Your task to perform on an android device: turn off priority inbox in the gmail app Image 0: 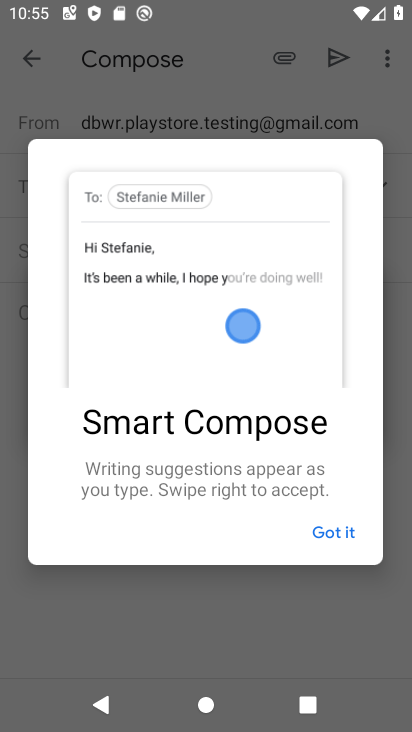
Step 0: click (334, 535)
Your task to perform on an android device: turn off priority inbox in the gmail app Image 1: 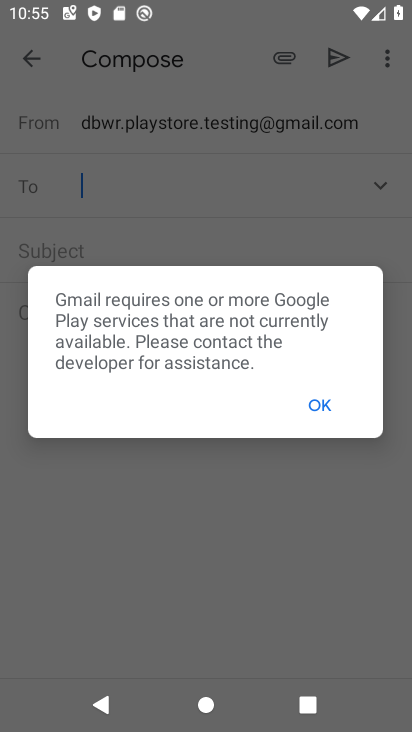
Step 1: press home button
Your task to perform on an android device: turn off priority inbox in the gmail app Image 2: 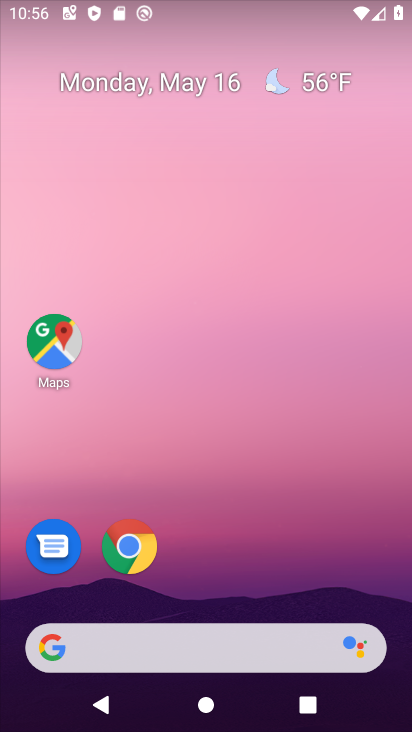
Step 2: drag from (310, 528) to (352, 52)
Your task to perform on an android device: turn off priority inbox in the gmail app Image 3: 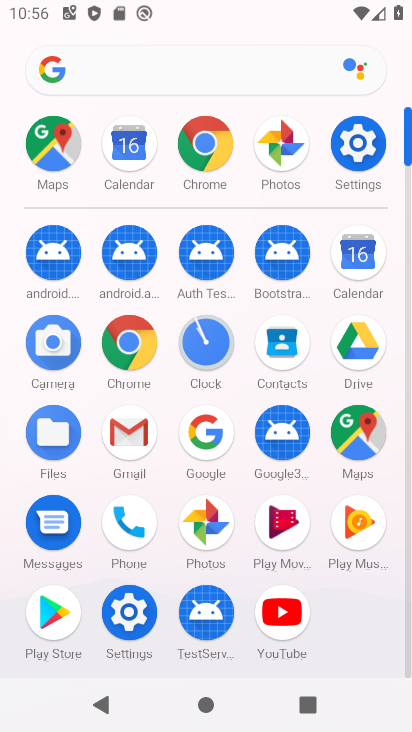
Step 3: click (135, 429)
Your task to perform on an android device: turn off priority inbox in the gmail app Image 4: 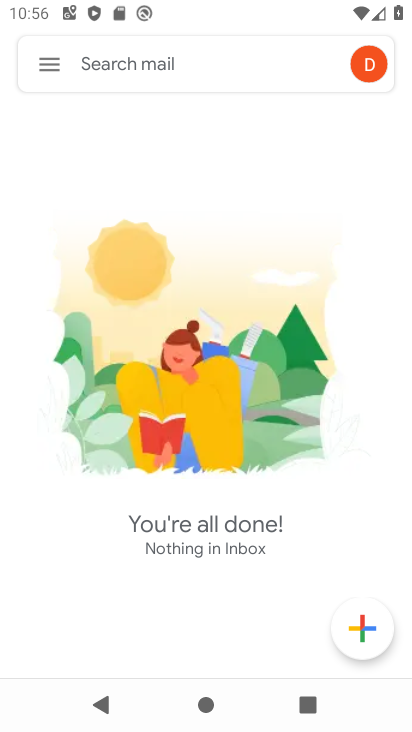
Step 4: click (46, 84)
Your task to perform on an android device: turn off priority inbox in the gmail app Image 5: 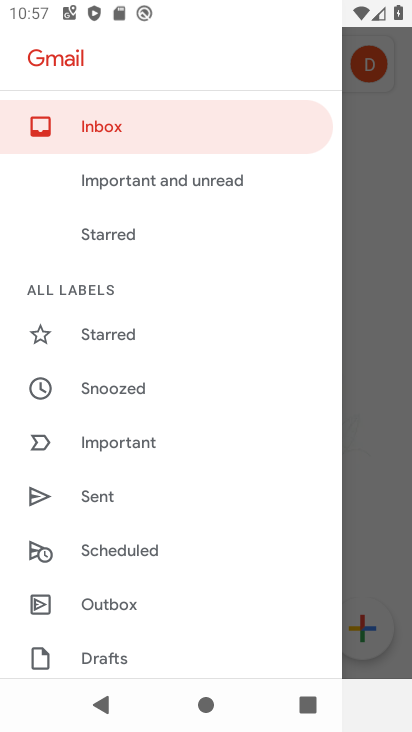
Step 5: drag from (131, 554) to (170, 167)
Your task to perform on an android device: turn off priority inbox in the gmail app Image 6: 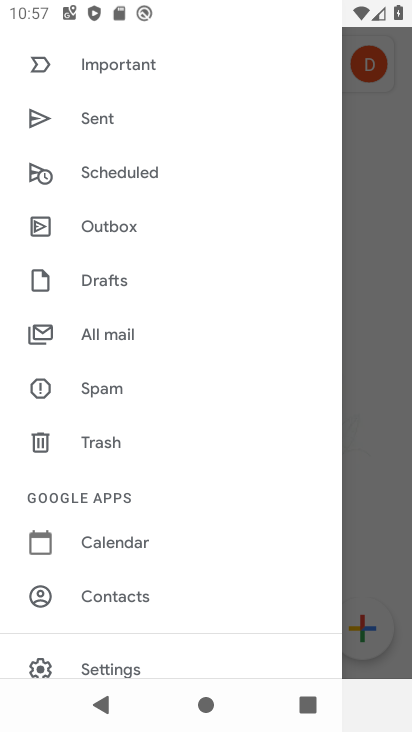
Step 6: drag from (117, 627) to (169, 242)
Your task to perform on an android device: turn off priority inbox in the gmail app Image 7: 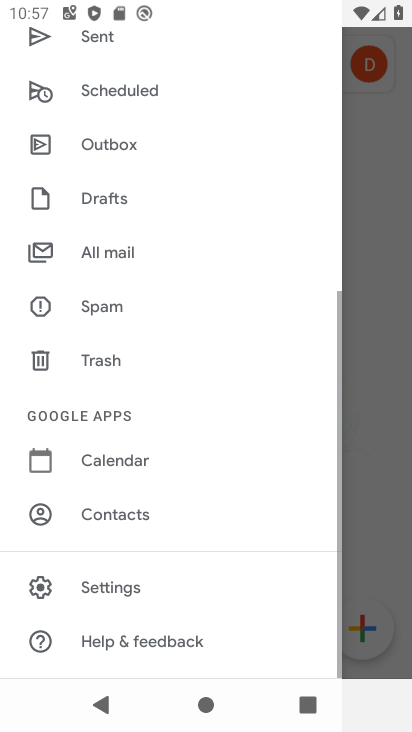
Step 7: click (109, 580)
Your task to perform on an android device: turn off priority inbox in the gmail app Image 8: 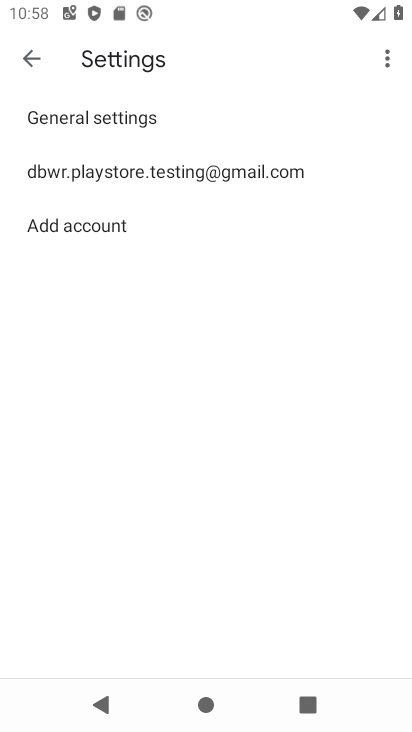
Step 8: click (74, 176)
Your task to perform on an android device: turn off priority inbox in the gmail app Image 9: 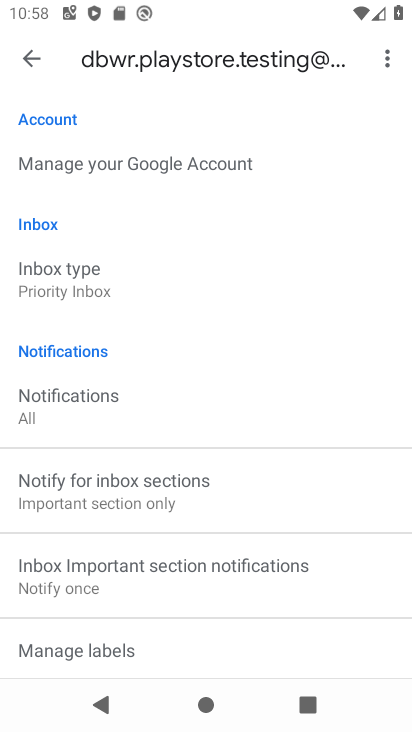
Step 9: click (100, 287)
Your task to perform on an android device: turn off priority inbox in the gmail app Image 10: 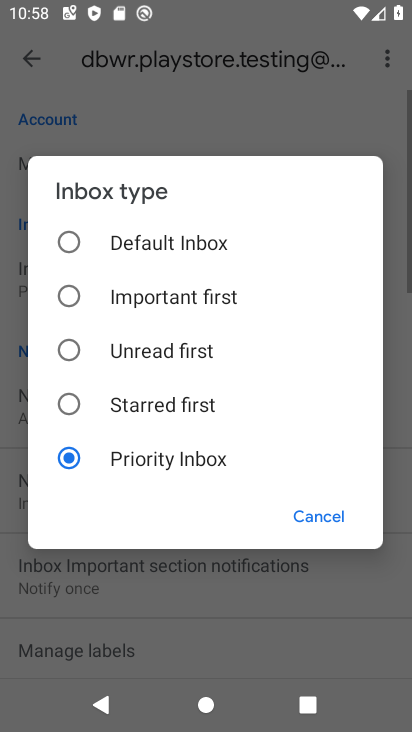
Step 10: click (121, 252)
Your task to perform on an android device: turn off priority inbox in the gmail app Image 11: 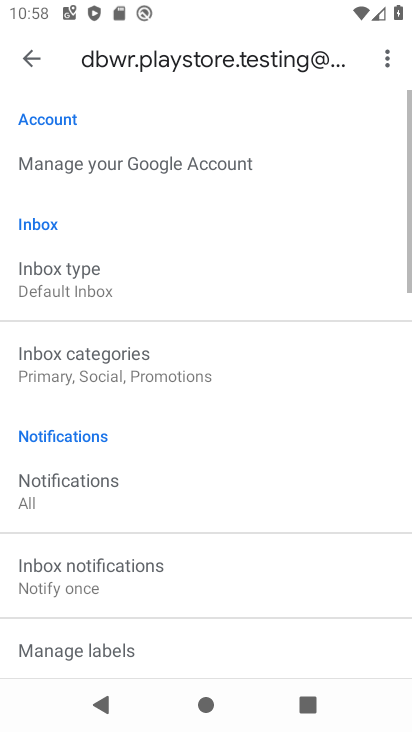
Step 11: task complete